Your task to perform on an android device: turn on wifi Image 0: 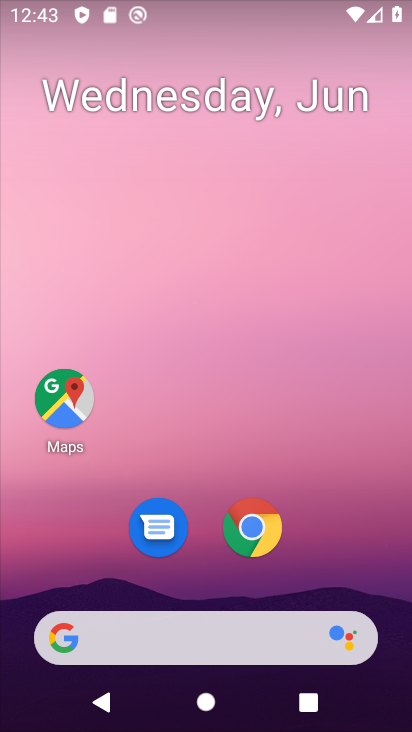
Step 0: drag from (247, 622) to (258, 8)
Your task to perform on an android device: turn on wifi Image 1: 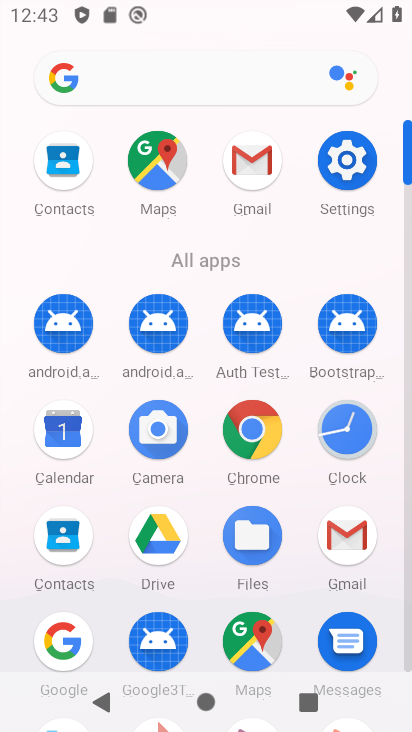
Step 1: click (359, 176)
Your task to perform on an android device: turn on wifi Image 2: 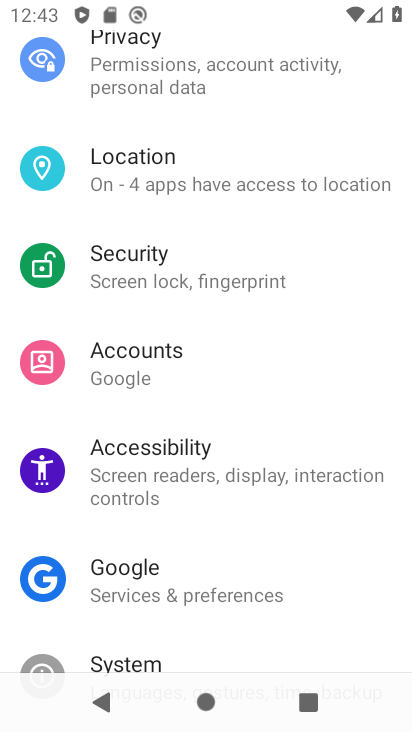
Step 2: drag from (168, 240) to (98, 712)
Your task to perform on an android device: turn on wifi Image 3: 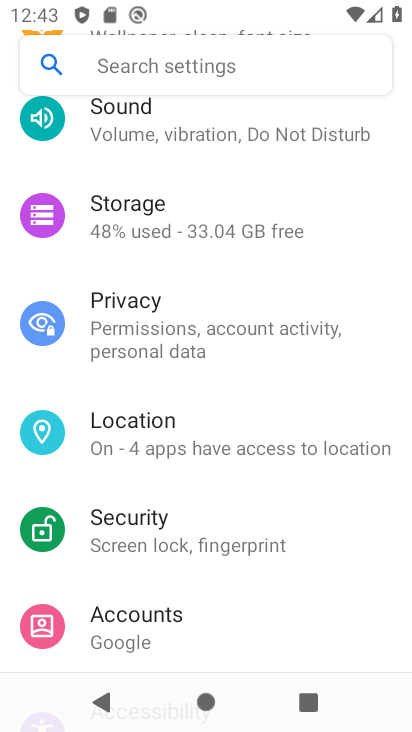
Step 3: drag from (217, 183) to (110, 662)
Your task to perform on an android device: turn on wifi Image 4: 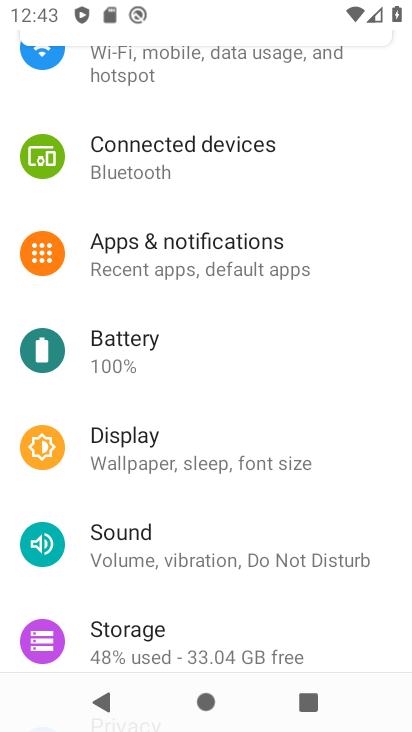
Step 4: drag from (159, 201) to (163, 689)
Your task to perform on an android device: turn on wifi Image 5: 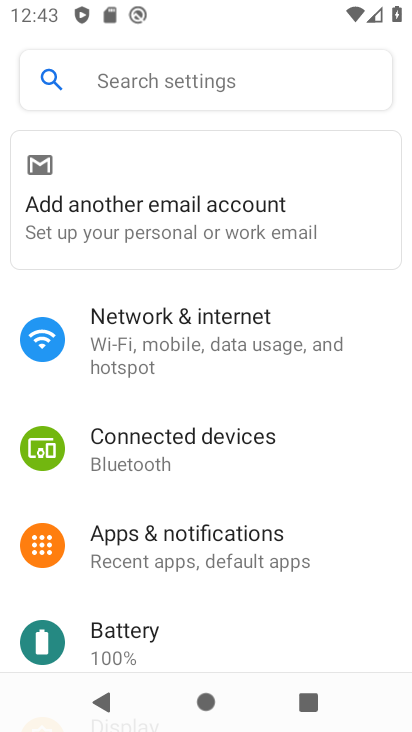
Step 5: click (178, 320)
Your task to perform on an android device: turn on wifi Image 6: 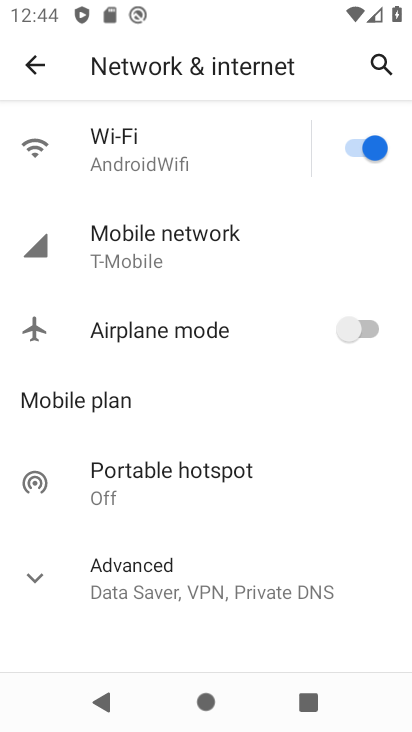
Step 6: task complete